Your task to perform on an android device: Check the news Image 0: 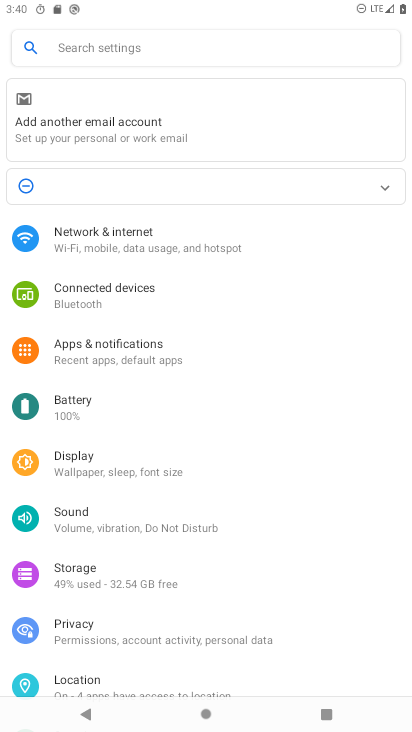
Step 0: press home button
Your task to perform on an android device: Check the news Image 1: 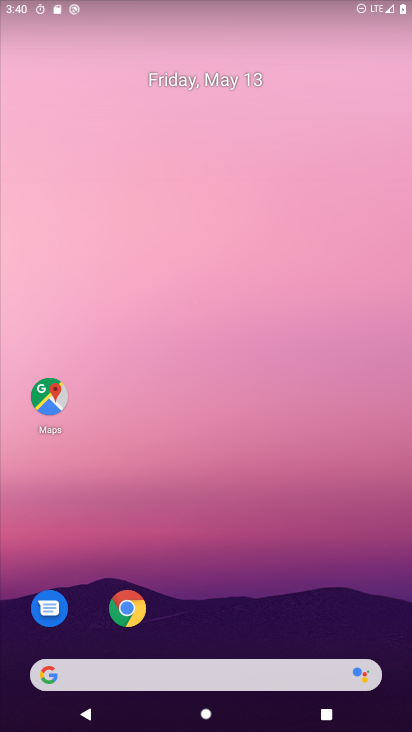
Step 1: click (130, 608)
Your task to perform on an android device: Check the news Image 2: 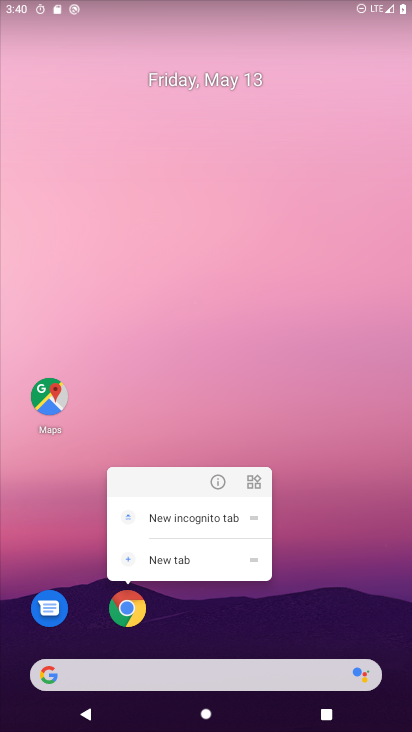
Step 2: click (124, 614)
Your task to perform on an android device: Check the news Image 3: 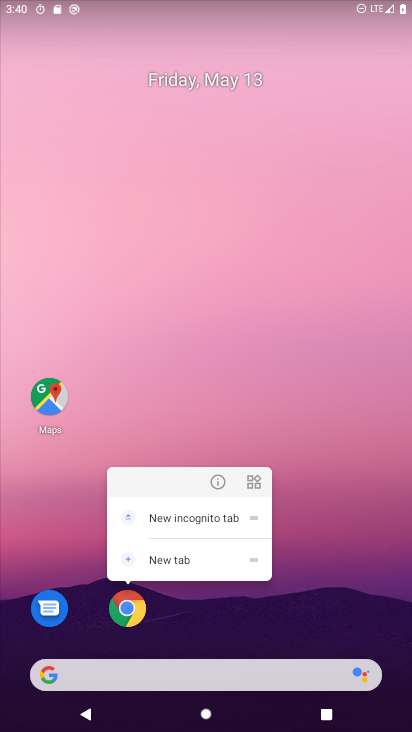
Step 3: click (140, 605)
Your task to perform on an android device: Check the news Image 4: 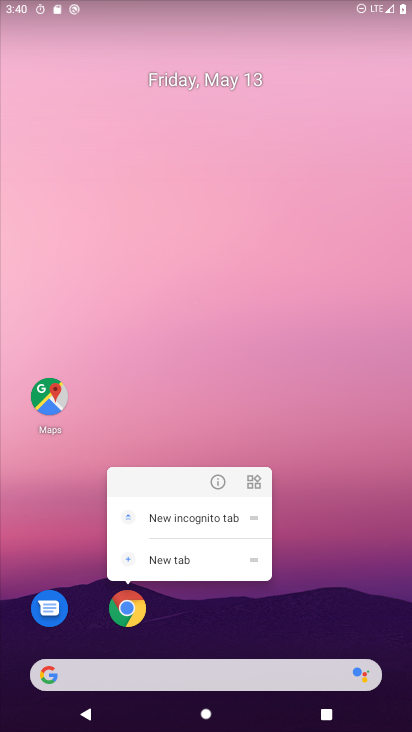
Step 4: click (144, 604)
Your task to perform on an android device: Check the news Image 5: 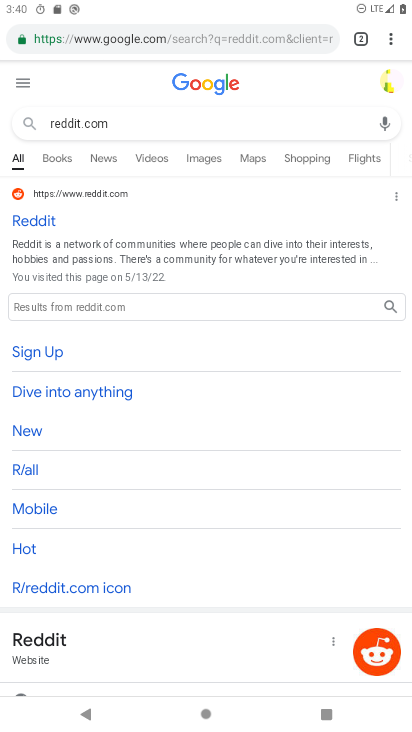
Step 5: click (326, 117)
Your task to perform on an android device: Check the news Image 6: 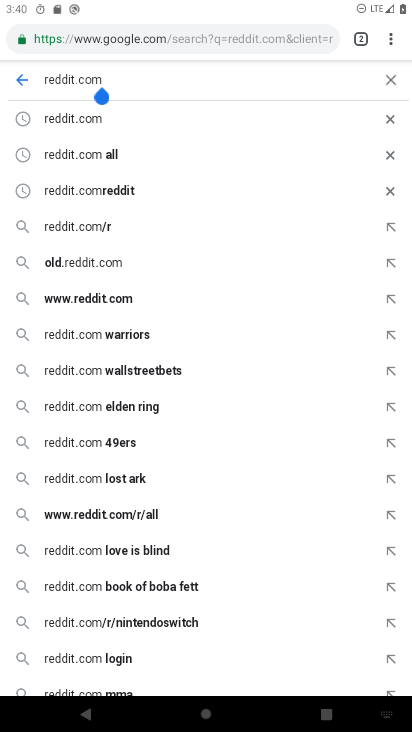
Step 6: click (392, 76)
Your task to perform on an android device: Check the news Image 7: 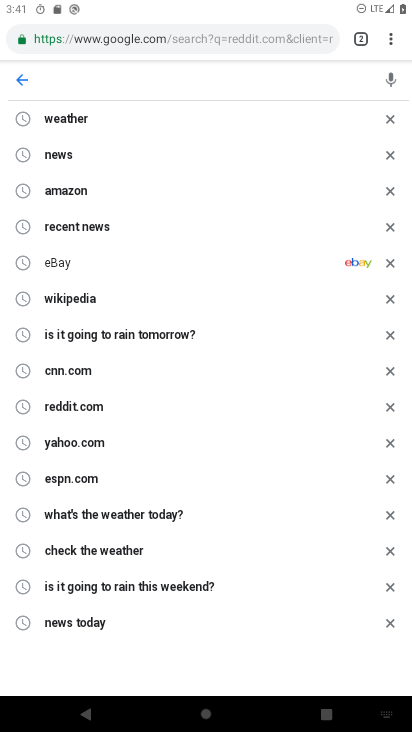
Step 7: type "Check the news"
Your task to perform on an android device: Check the news Image 8: 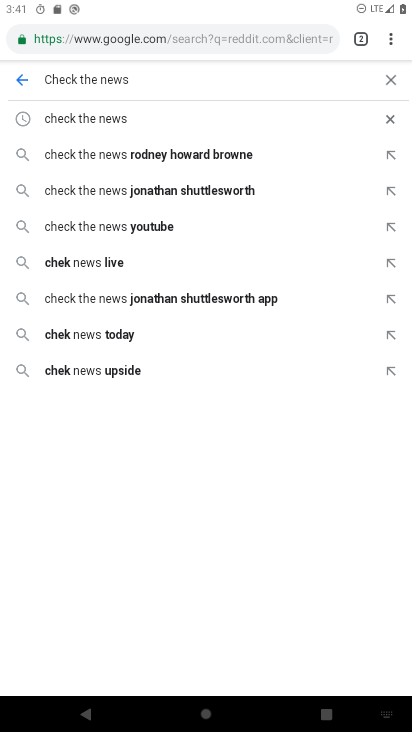
Step 8: click (69, 117)
Your task to perform on an android device: Check the news Image 9: 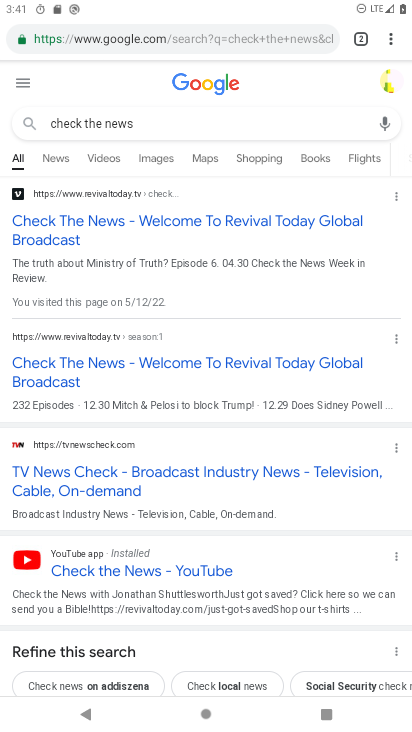
Step 9: click (60, 162)
Your task to perform on an android device: Check the news Image 10: 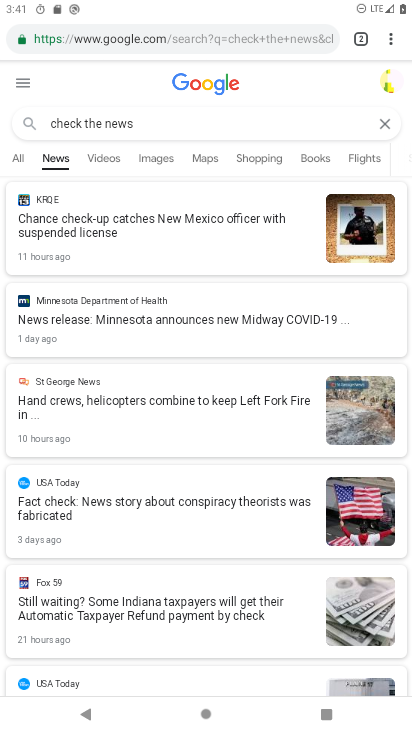
Step 10: task complete